Your task to perform on an android device: Set the phone to "Do not disturb". Image 0: 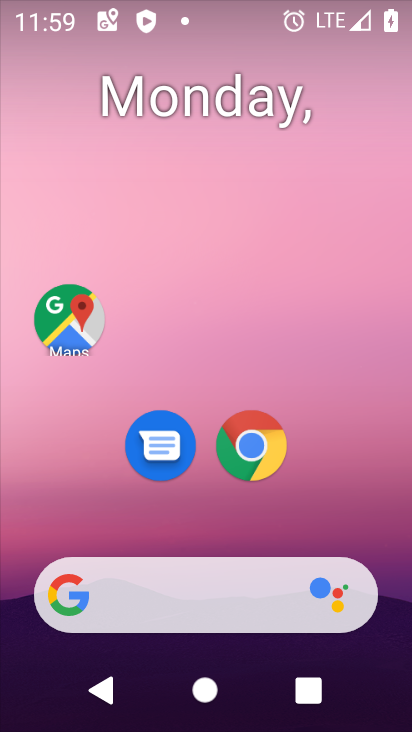
Step 0: drag from (345, 496) to (137, 24)
Your task to perform on an android device: Set the phone to "Do not disturb". Image 1: 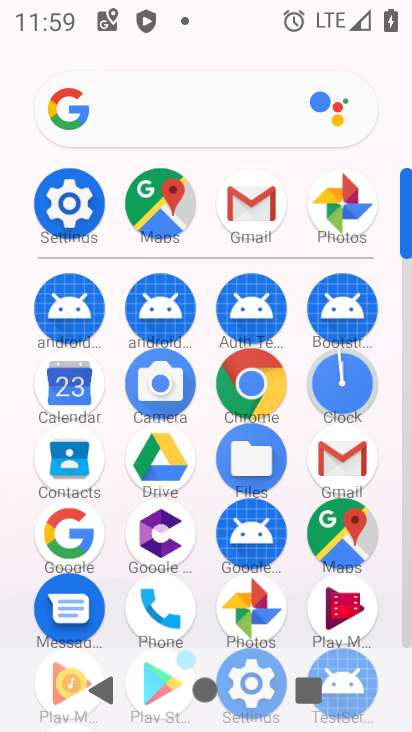
Step 1: click (56, 226)
Your task to perform on an android device: Set the phone to "Do not disturb". Image 2: 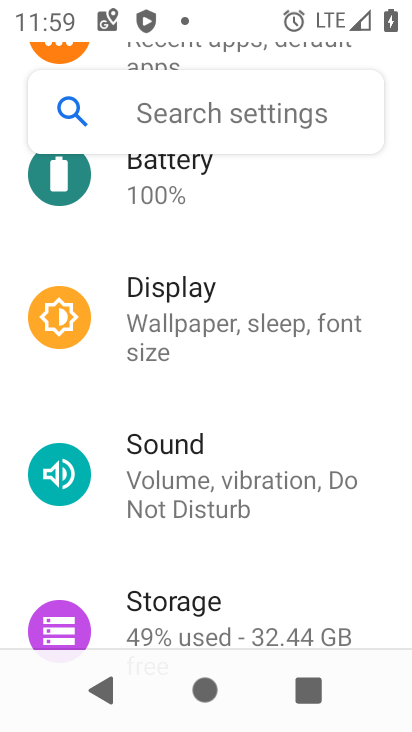
Step 2: click (161, 460)
Your task to perform on an android device: Set the phone to "Do not disturb". Image 3: 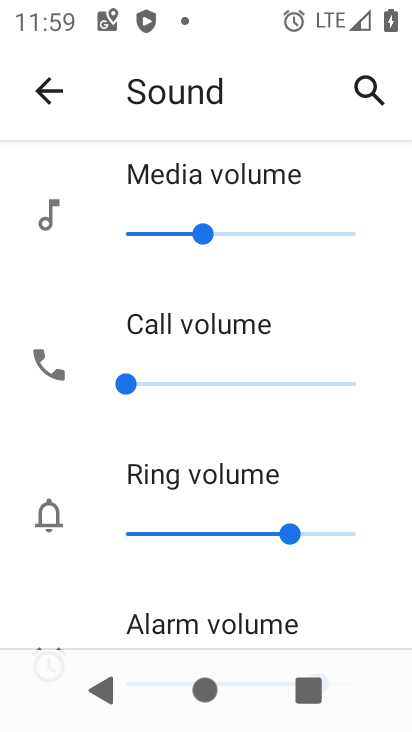
Step 3: drag from (295, 480) to (262, 57)
Your task to perform on an android device: Set the phone to "Do not disturb". Image 4: 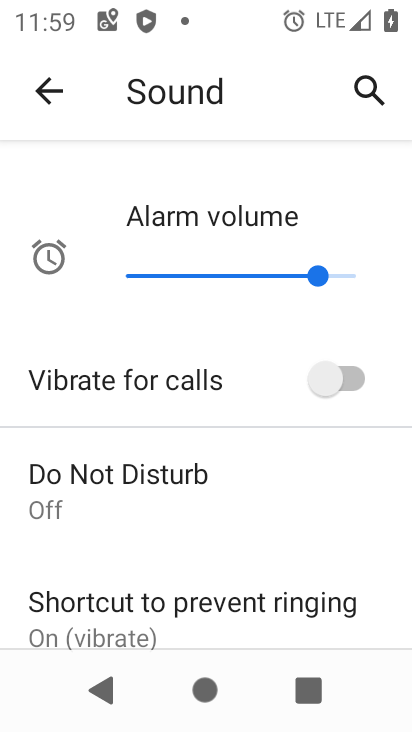
Step 4: click (77, 476)
Your task to perform on an android device: Set the phone to "Do not disturb". Image 5: 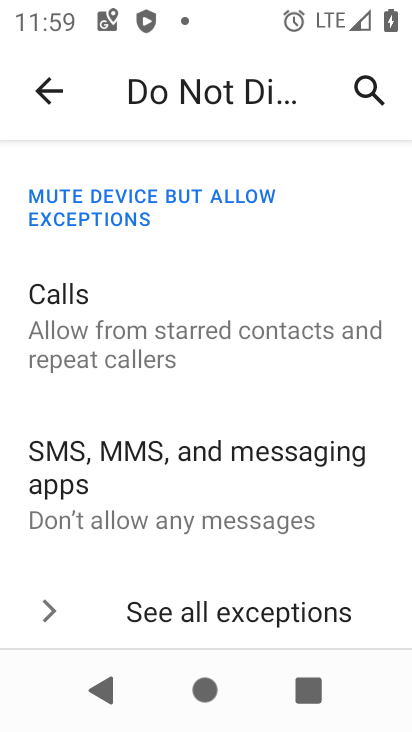
Step 5: drag from (229, 546) to (191, 79)
Your task to perform on an android device: Set the phone to "Do not disturb". Image 6: 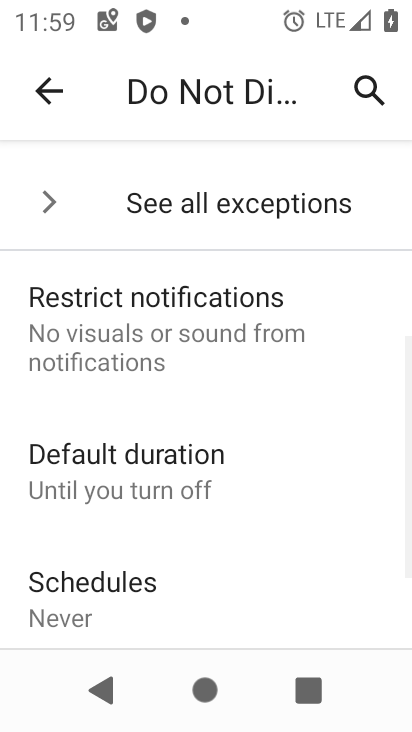
Step 6: drag from (191, 520) to (162, 238)
Your task to perform on an android device: Set the phone to "Do not disturb". Image 7: 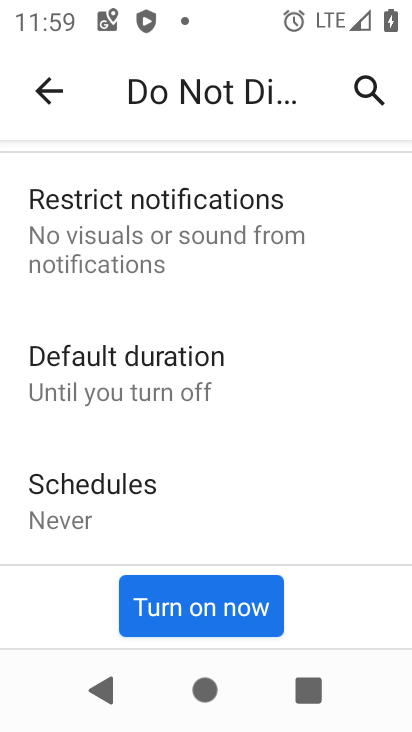
Step 7: drag from (166, 531) to (137, 299)
Your task to perform on an android device: Set the phone to "Do not disturb". Image 8: 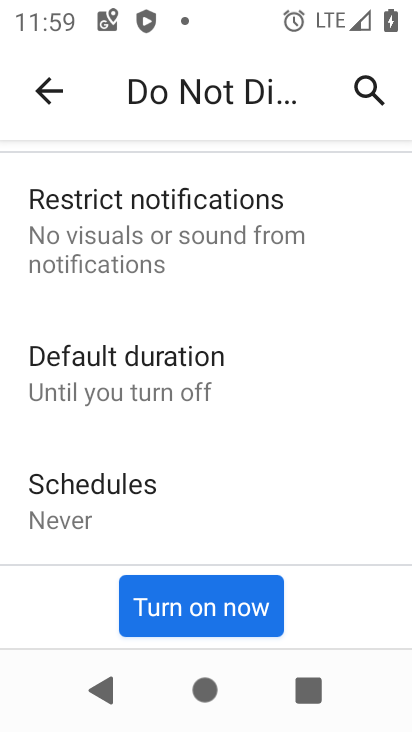
Step 8: click (199, 621)
Your task to perform on an android device: Set the phone to "Do not disturb". Image 9: 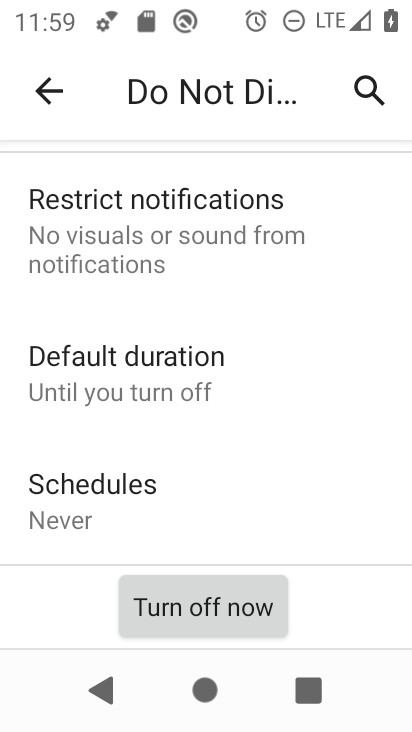
Step 9: task complete